Your task to perform on an android device: Open battery settings Image 0: 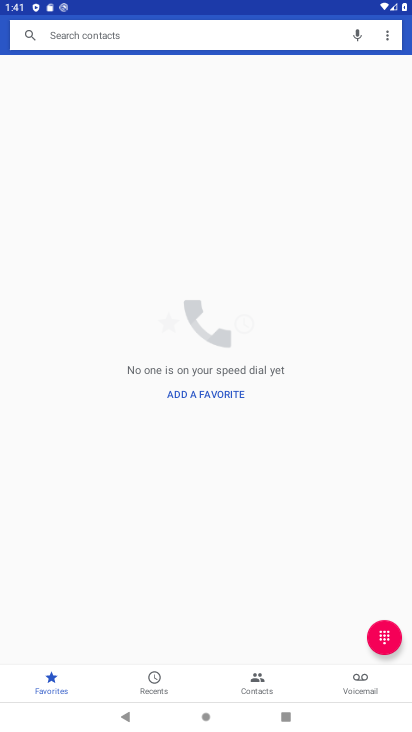
Step 0: press home button
Your task to perform on an android device: Open battery settings Image 1: 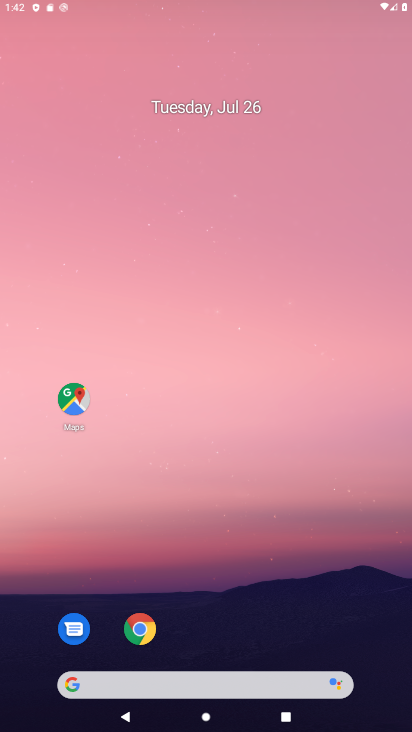
Step 1: drag from (211, 695) to (330, 141)
Your task to perform on an android device: Open battery settings Image 2: 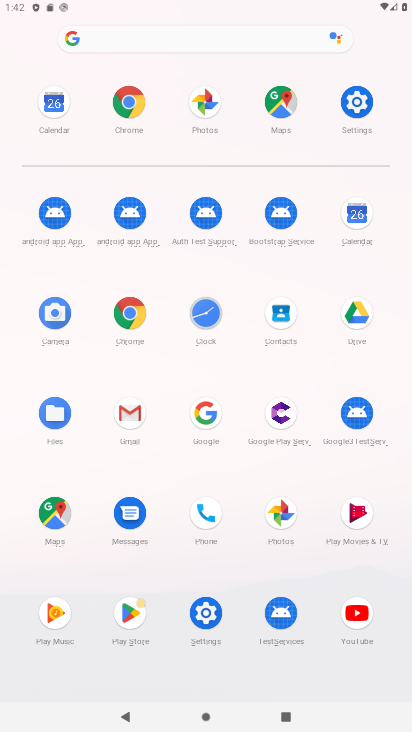
Step 2: click (362, 104)
Your task to perform on an android device: Open battery settings Image 3: 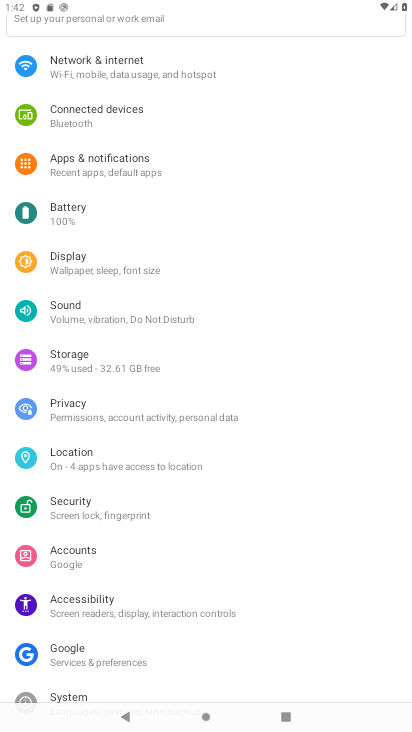
Step 3: click (80, 210)
Your task to perform on an android device: Open battery settings Image 4: 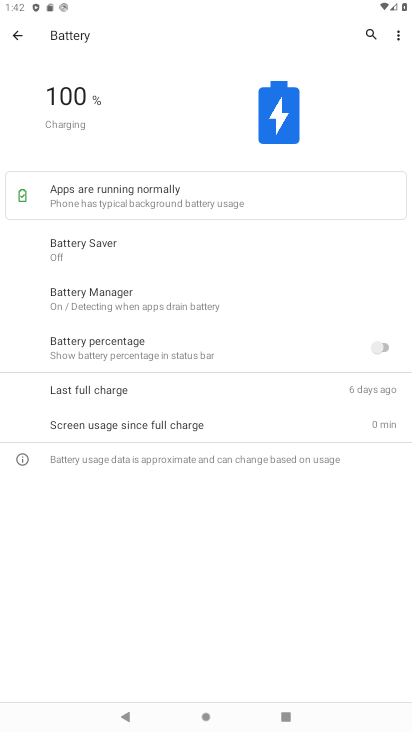
Step 4: task complete